Your task to perform on an android device: find photos in the google photos app Image 0: 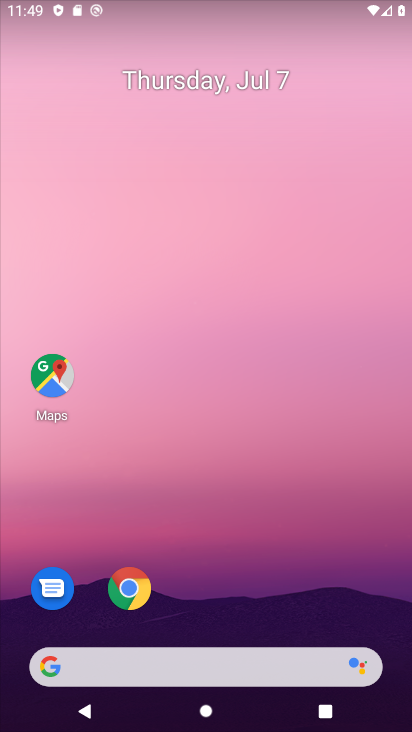
Step 0: drag from (180, 458) to (199, 106)
Your task to perform on an android device: find photos in the google photos app Image 1: 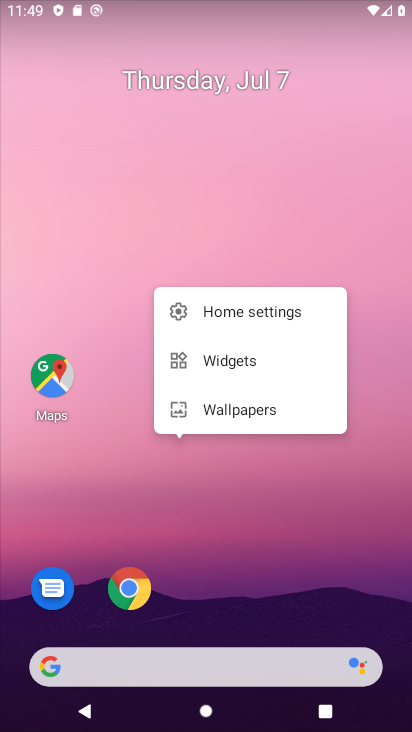
Step 1: click (223, 626)
Your task to perform on an android device: find photos in the google photos app Image 2: 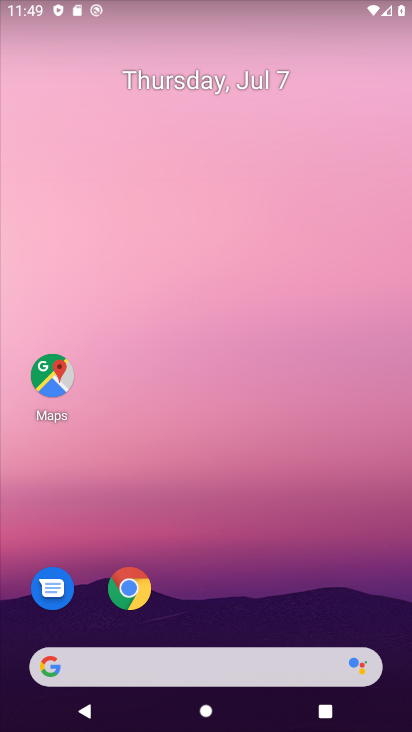
Step 2: drag from (219, 616) to (205, 69)
Your task to perform on an android device: find photos in the google photos app Image 3: 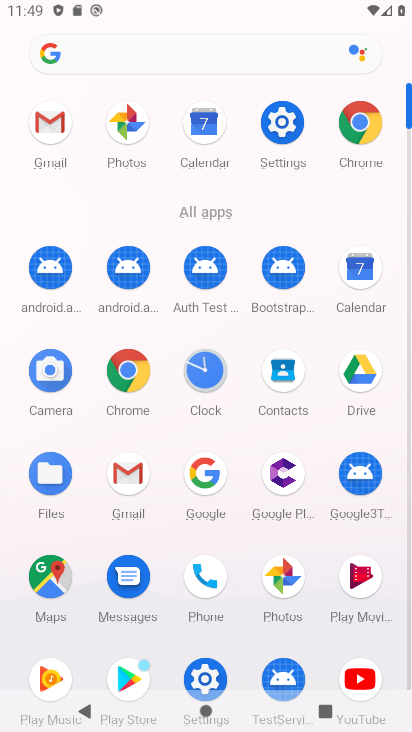
Step 3: click (279, 584)
Your task to perform on an android device: find photos in the google photos app Image 4: 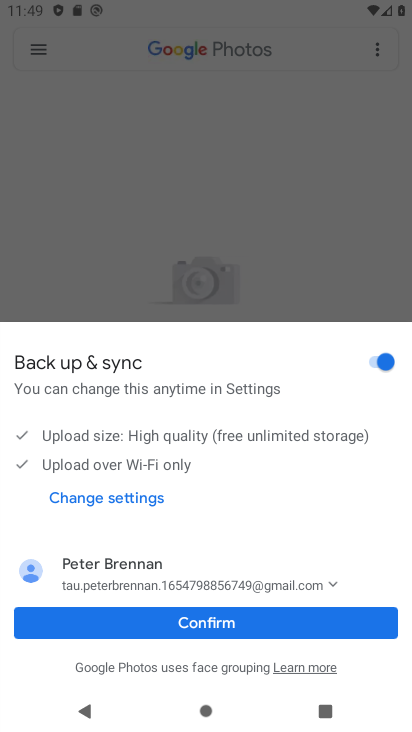
Step 4: click (217, 616)
Your task to perform on an android device: find photos in the google photos app Image 5: 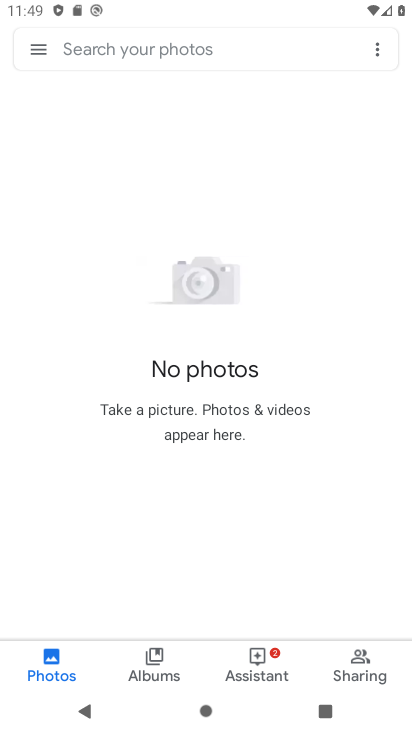
Step 5: click (144, 674)
Your task to perform on an android device: find photos in the google photos app Image 6: 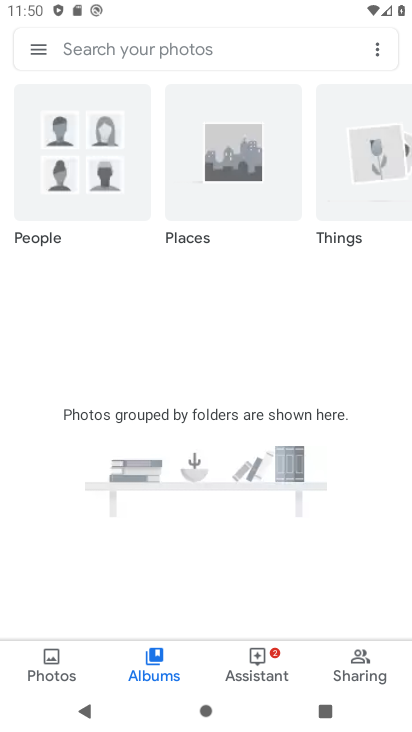
Step 6: task complete